Your task to perform on an android device: Open network settings Image 0: 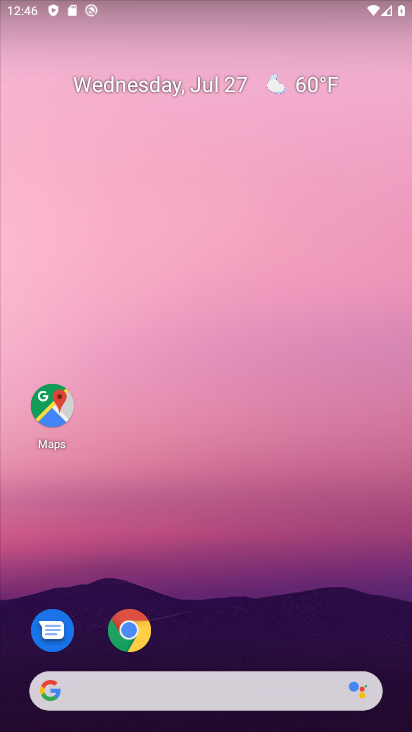
Step 0: press home button
Your task to perform on an android device: Open network settings Image 1: 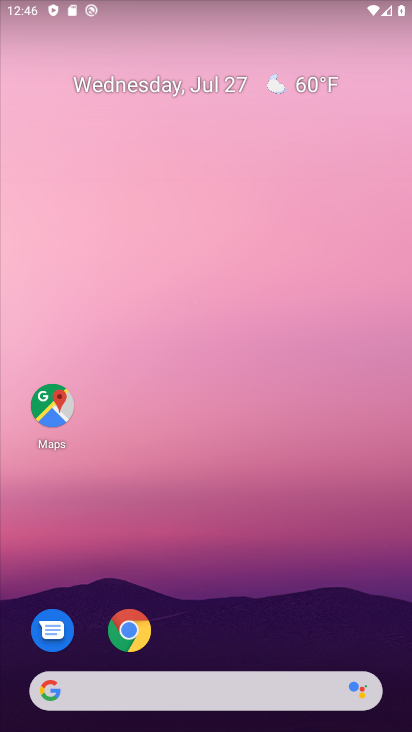
Step 1: drag from (236, 595) to (163, 4)
Your task to perform on an android device: Open network settings Image 2: 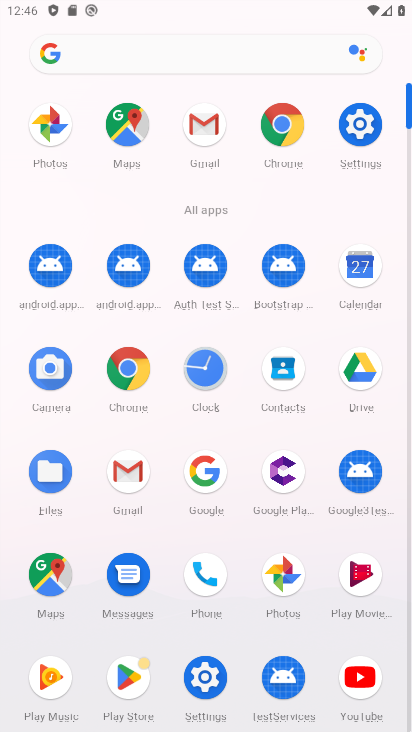
Step 2: click (367, 124)
Your task to perform on an android device: Open network settings Image 3: 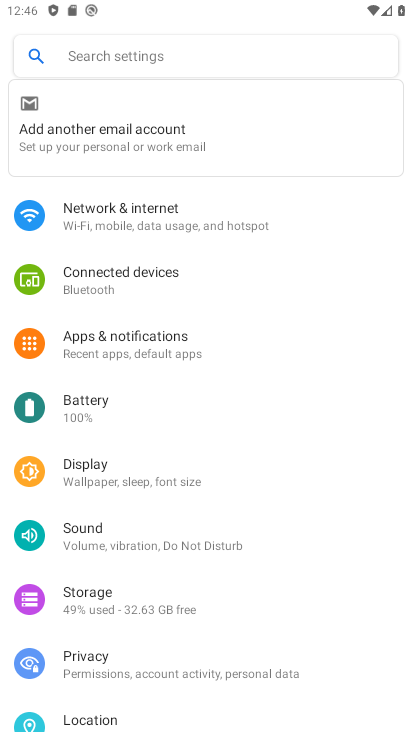
Step 3: click (117, 226)
Your task to perform on an android device: Open network settings Image 4: 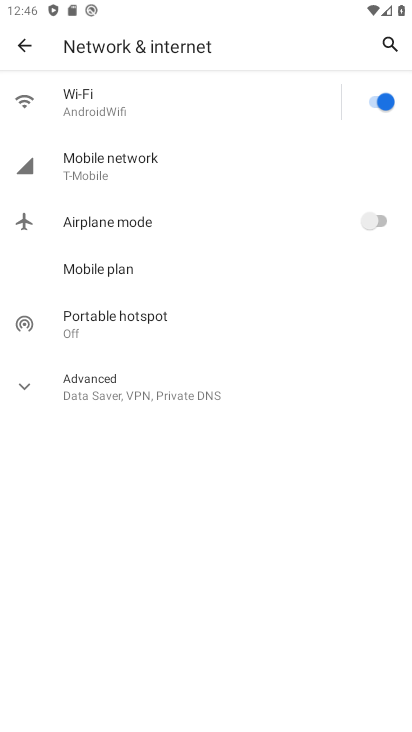
Step 4: task complete